Your task to perform on an android device: change the clock display to show seconds Image 0: 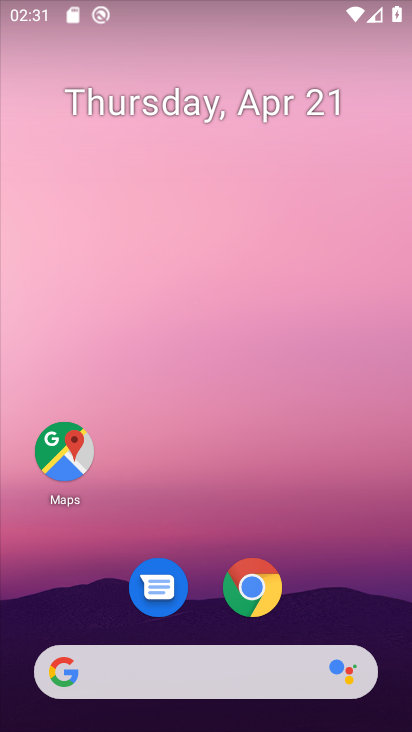
Step 0: drag from (354, 586) to (368, 179)
Your task to perform on an android device: change the clock display to show seconds Image 1: 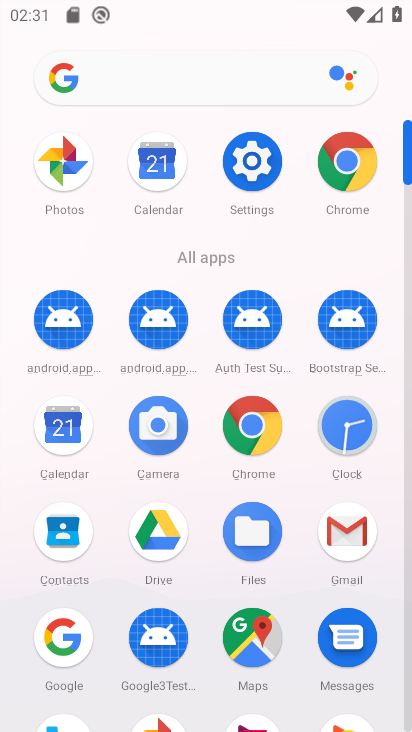
Step 1: click (355, 431)
Your task to perform on an android device: change the clock display to show seconds Image 2: 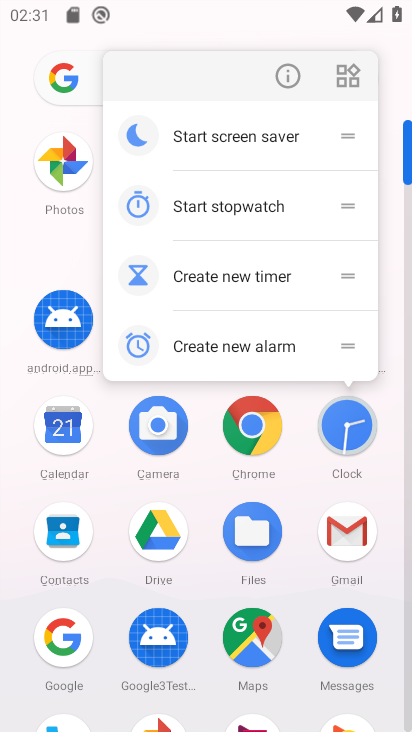
Step 2: click (355, 432)
Your task to perform on an android device: change the clock display to show seconds Image 3: 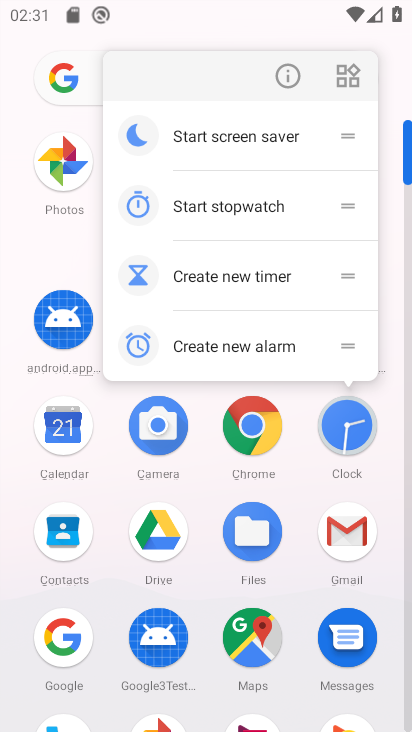
Step 3: click (355, 432)
Your task to perform on an android device: change the clock display to show seconds Image 4: 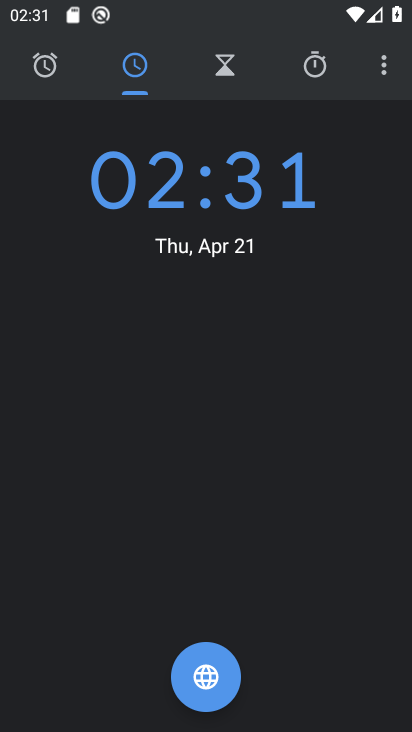
Step 4: click (382, 69)
Your task to perform on an android device: change the clock display to show seconds Image 5: 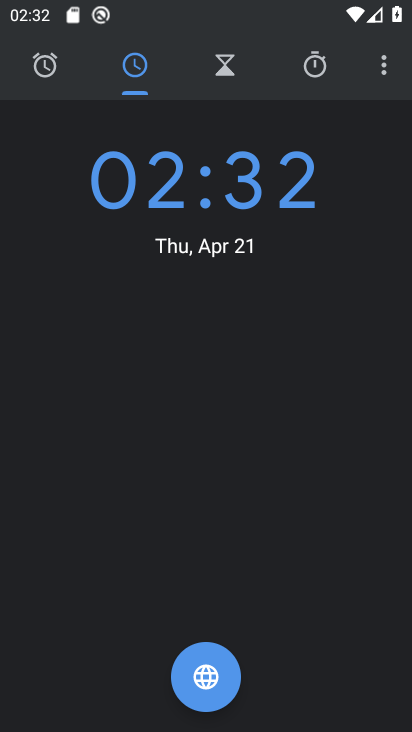
Step 5: click (388, 55)
Your task to perform on an android device: change the clock display to show seconds Image 6: 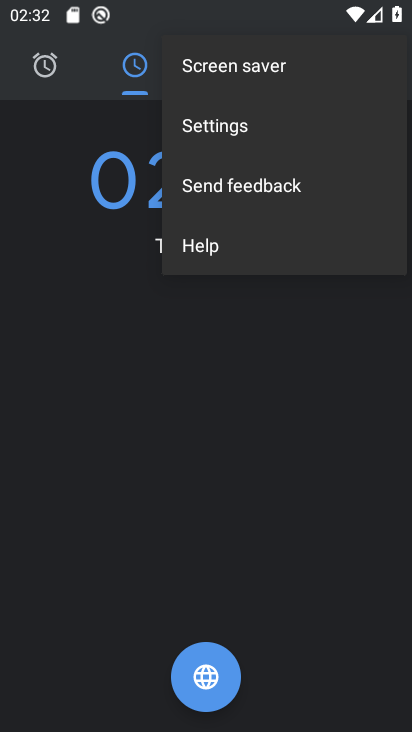
Step 6: click (273, 123)
Your task to perform on an android device: change the clock display to show seconds Image 7: 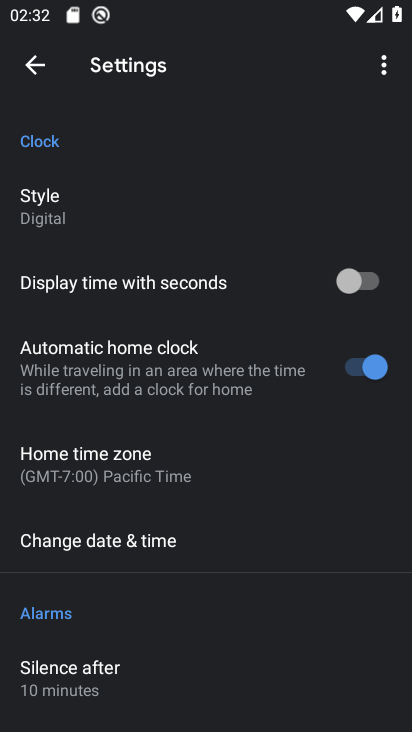
Step 7: drag from (307, 583) to (305, 406)
Your task to perform on an android device: change the clock display to show seconds Image 8: 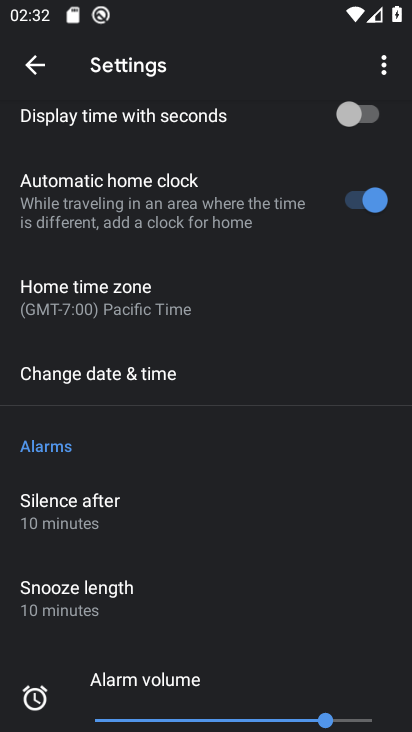
Step 8: drag from (312, 583) to (281, 326)
Your task to perform on an android device: change the clock display to show seconds Image 9: 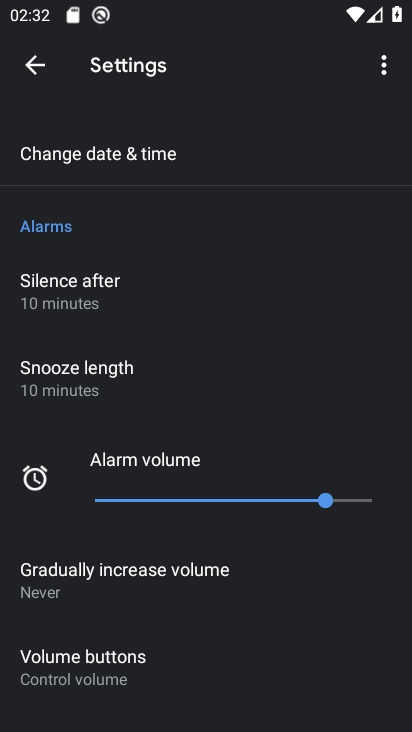
Step 9: drag from (313, 597) to (327, 354)
Your task to perform on an android device: change the clock display to show seconds Image 10: 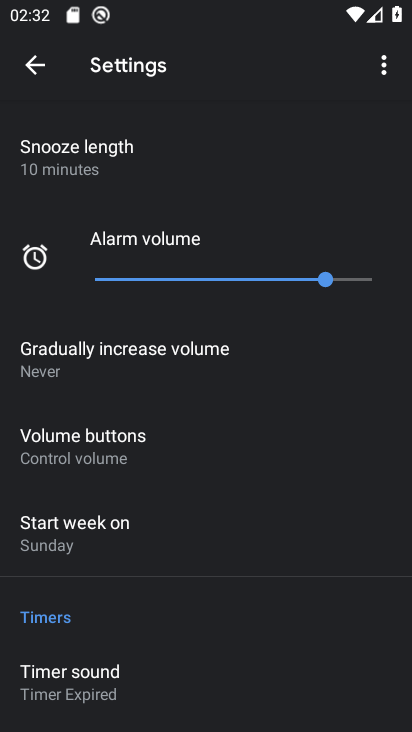
Step 10: drag from (327, 605) to (320, 375)
Your task to perform on an android device: change the clock display to show seconds Image 11: 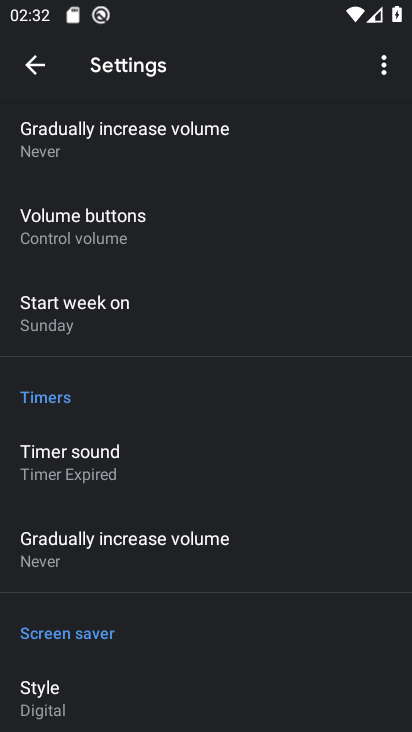
Step 11: drag from (325, 606) to (340, 392)
Your task to perform on an android device: change the clock display to show seconds Image 12: 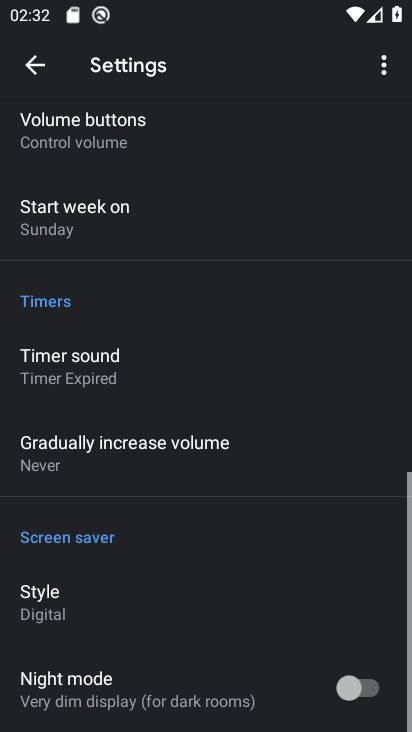
Step 12: drag from (354, 327) to (325, 570)
Your task to perform on an android device: change the clock display to show seconds Image 13: 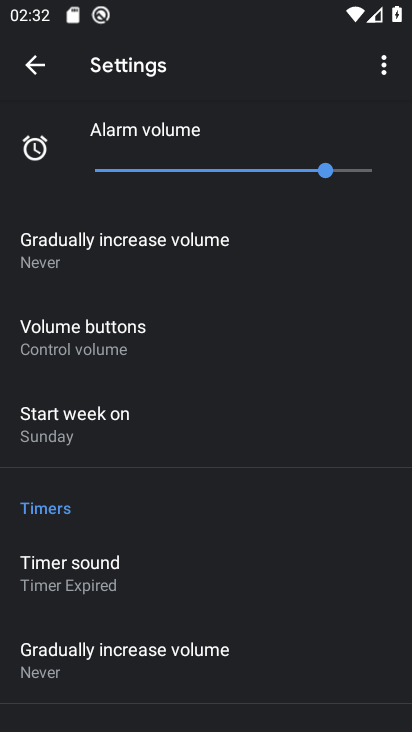
Step 13: drag from (322, 315) to (291, 509)
Your task to perform on an android device: change the clock display to show seconds Image 14: 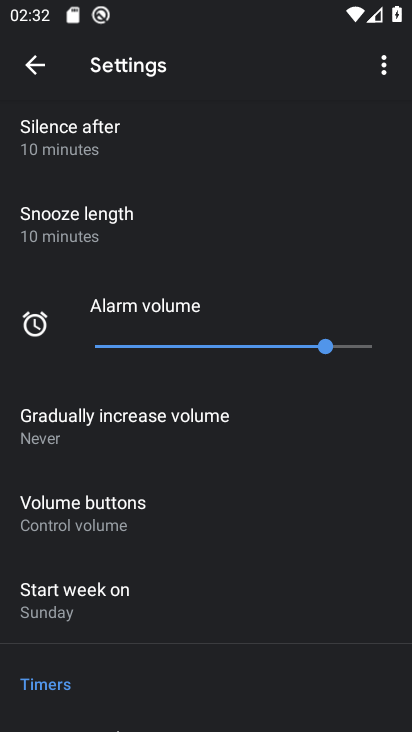
Step 14: drag from (305, 268) to (287, 491)
Your task to perform on an android device: change the clock display to show seconds Image 15: 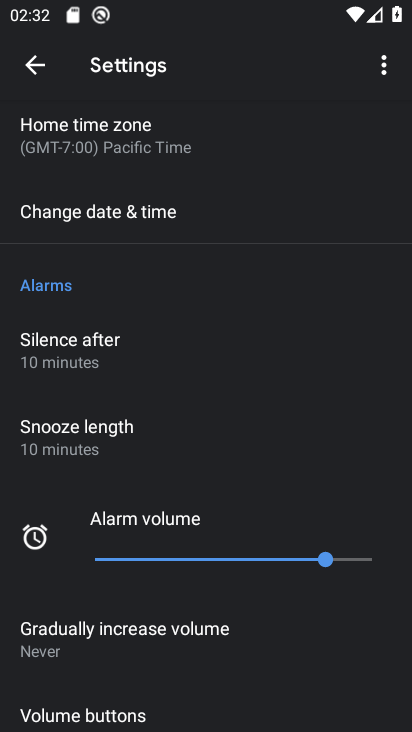
Step 15: drag from (301, 235) to (289, 456)
Your task to perform on an android device: change the clock display to show seconds Image 16: 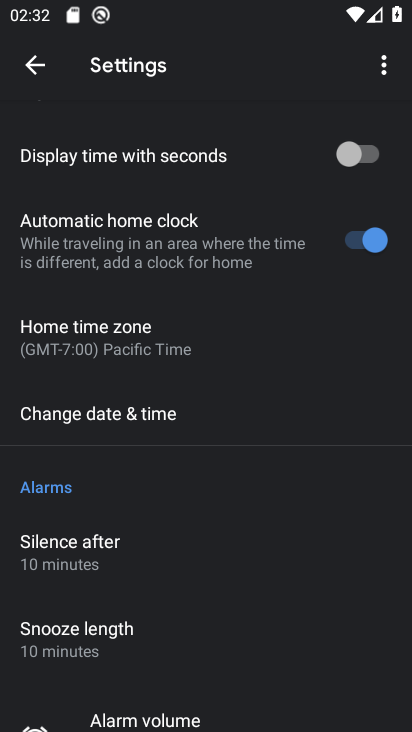
Step 16: drag from (298, 188) to (293, 460)
Your task to perform on an android device: change the clock display to show seconds Image 17: 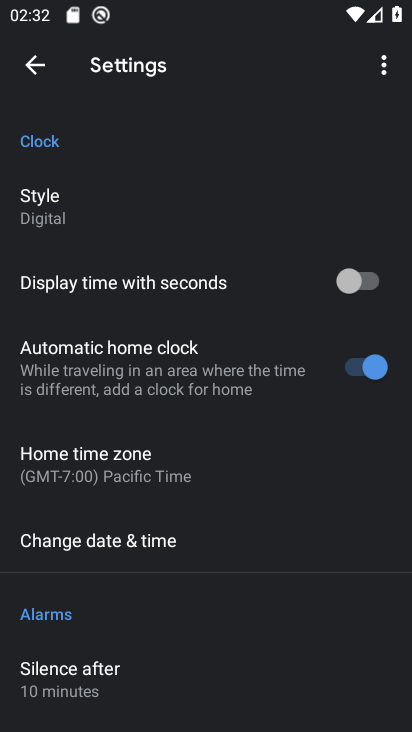
Step 17: click (351, 276)
Your task to perform on an android device: change the clock display to show seconds Image 18: 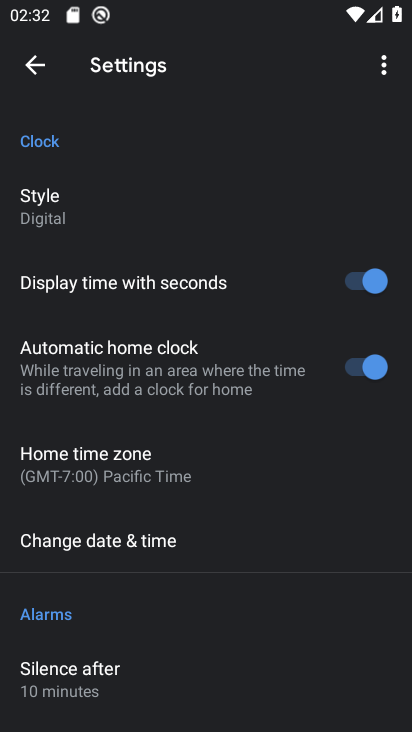
Step 18: task complete